Your task to perform on an android device: see sites visited before in the chrome app Image 0: 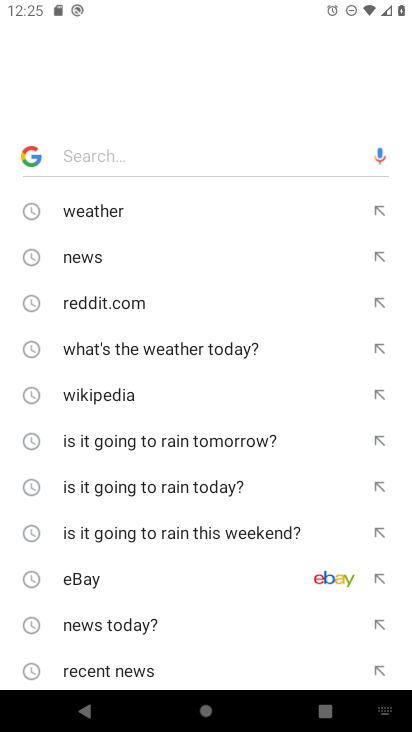
Step 0: press home button
Your task to perform on an android device: see sites visited before in the chrome app Image 1: 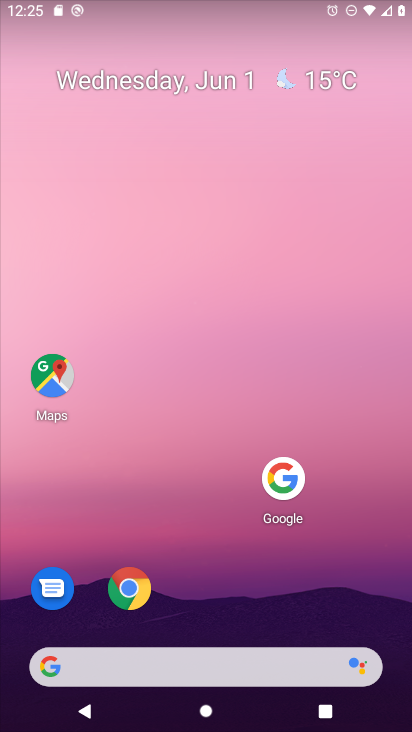
Step 1: click (130, 597)
Your task to perform on an android device: see sites visited before in the chrome app Image 2: 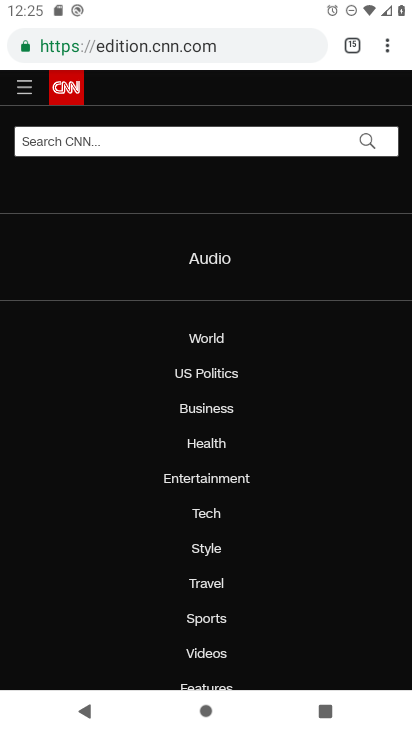
Step 2: task complete